Your task to perform on an android device: open wifi settings Image 0: 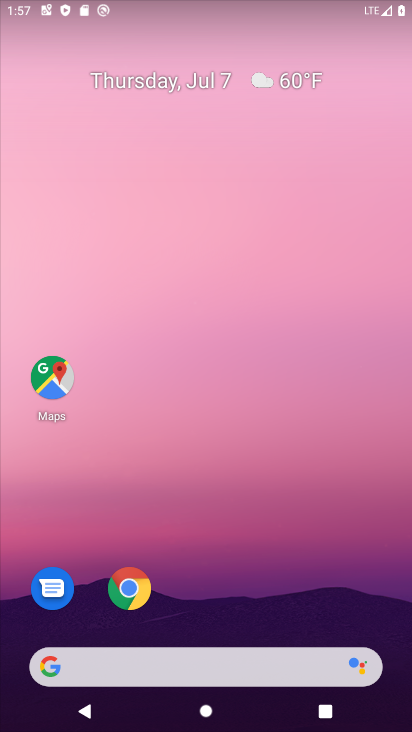
Step 0: drag from (232, 592) to (227, 175)
Your task to perform on an android device: open wifi settings Image 1: 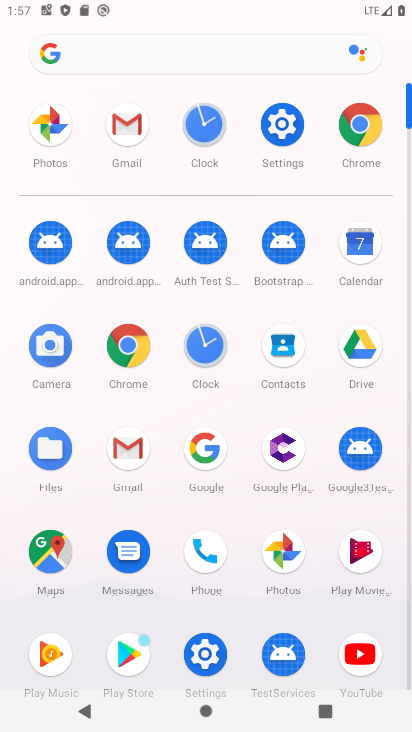
Step 1: click (287, 127)
Your task to perform on an android device: open wifi settings Image 2: 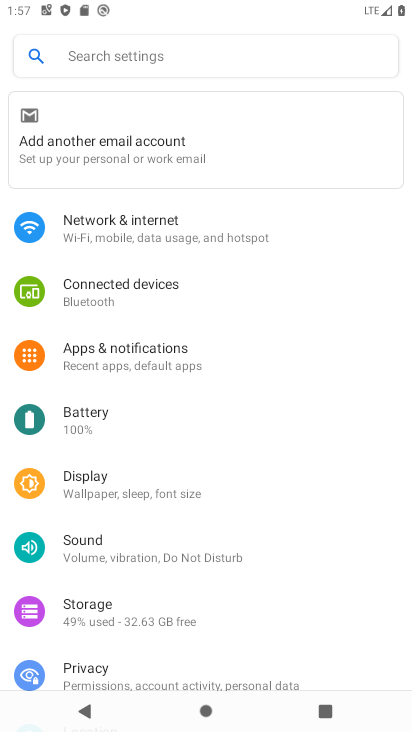
Step 2: click (167, 225)
Your task to perform on an android device: open wifi settings Image 3: 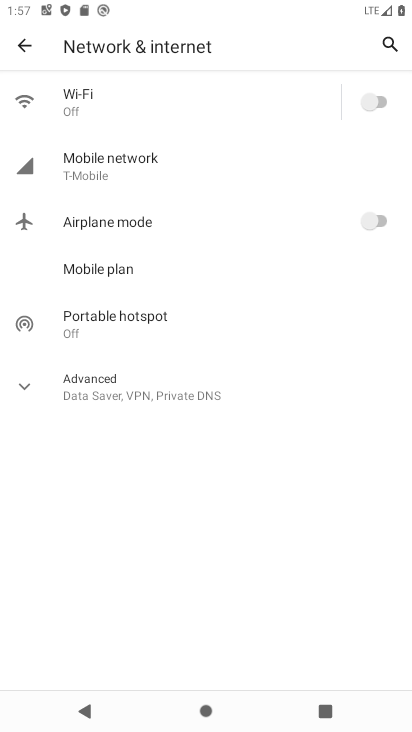
Step 3: click (171, 90)
Your task to perform on an android device: open wifi settings Image 4: 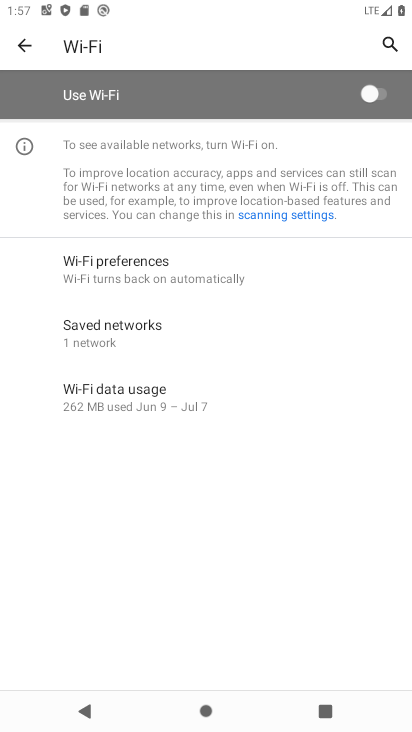
Step 4: task complete